Your task to perform on an android device: Search for Italian restaurants on Maps Image 0: 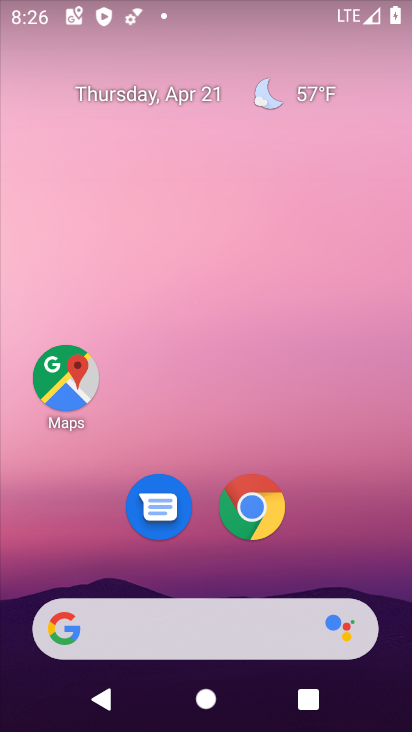
Step 0: click (77, 396)
Your task to perform on an android device: Search for Italian restaurants on Maps Image 1: 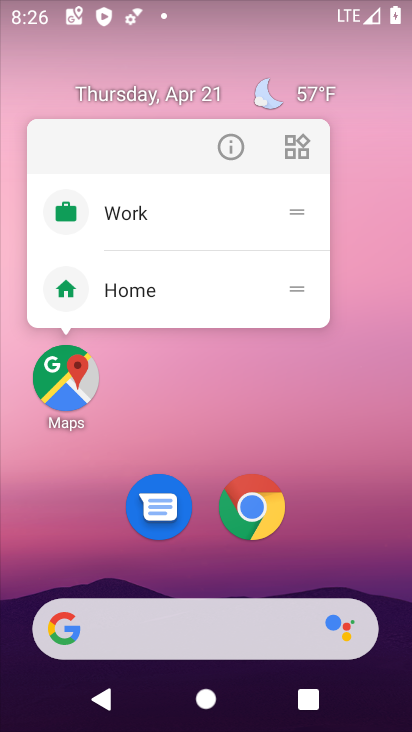
Step 1: click (75, 387)
Your task to perform on an android device: Search for Italian restaurants on Maps Image 2: 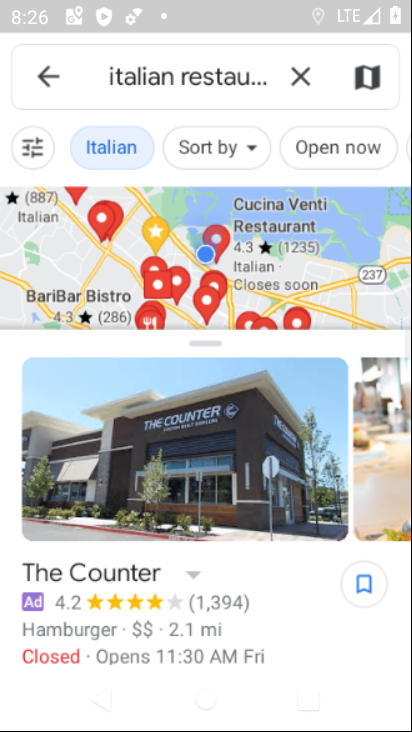
Step 2: task complete